Your task to perform on an android device: turn off airplane mode Image 0: 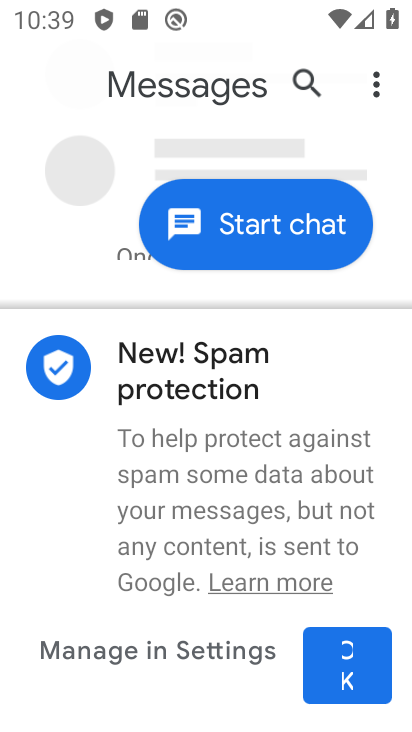
Step 0: press home button
Your task to perform on an android device: turn off airplane mode Image 1: 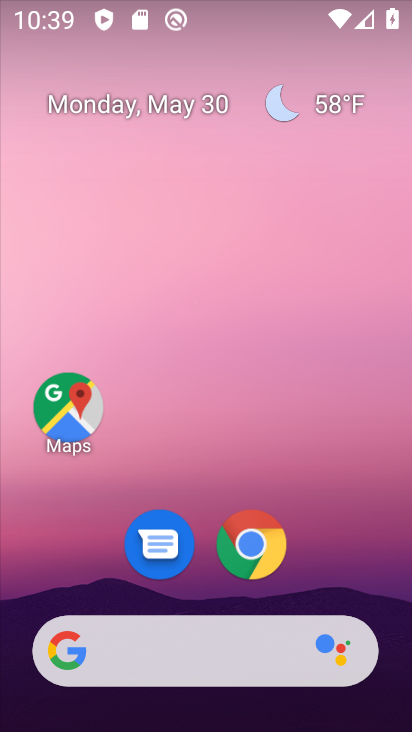
Step 1: drag from (378, 587) to (337, 130)
Your task to perform on an android device: turn off airplane mode Image 2: 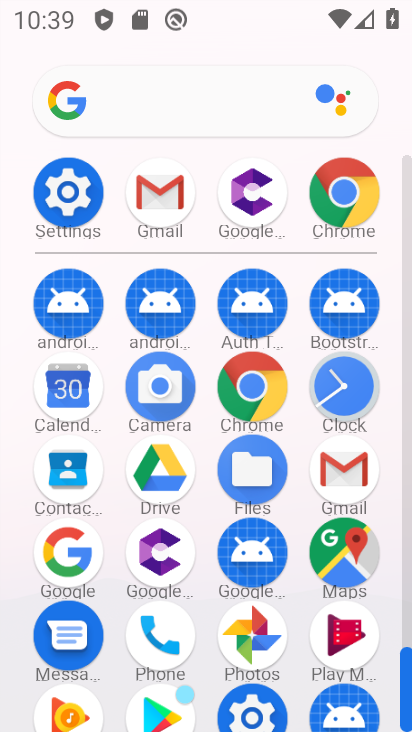
Step 2: click (86, 184)
Your task to perform on an android device: turn off airplane mode Image 3: 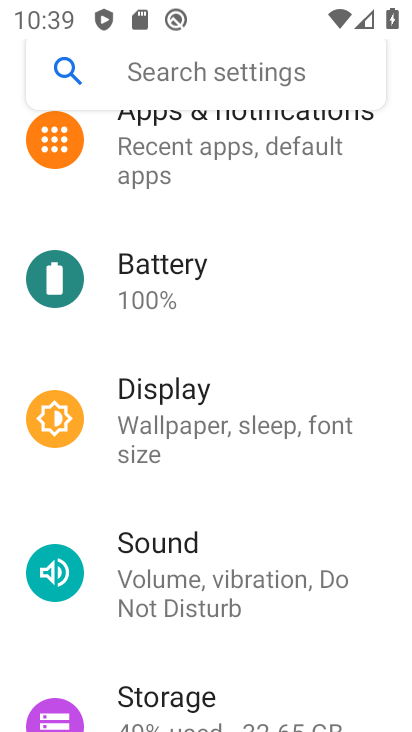
Step 3: drag from (260, 163) to (161, 686)
Your task to perform on an android device: turn off airplane mode Image 4: 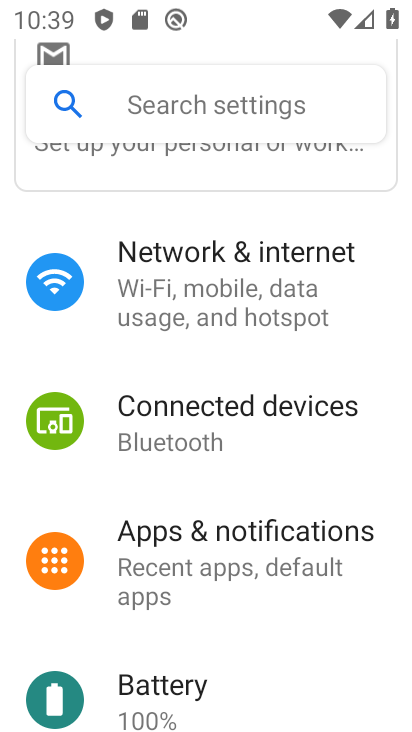
Step 4: click (271, 233)
Your task to perform on an android device: turn off airplane mode Image 5: 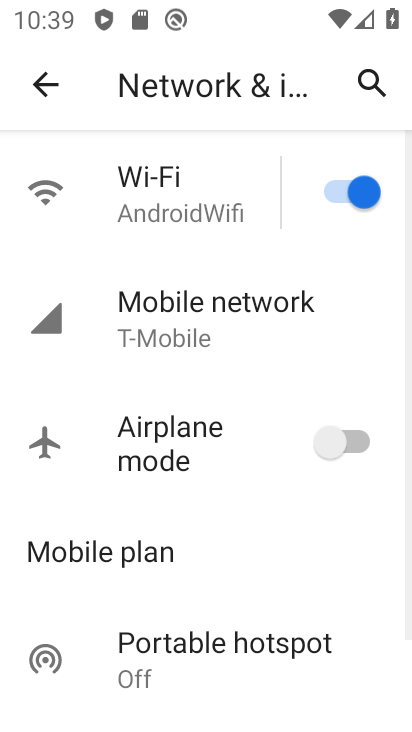
Step 5: click (335, 415)
Your task to perform on an android device: turn off airplane mode Image 6: 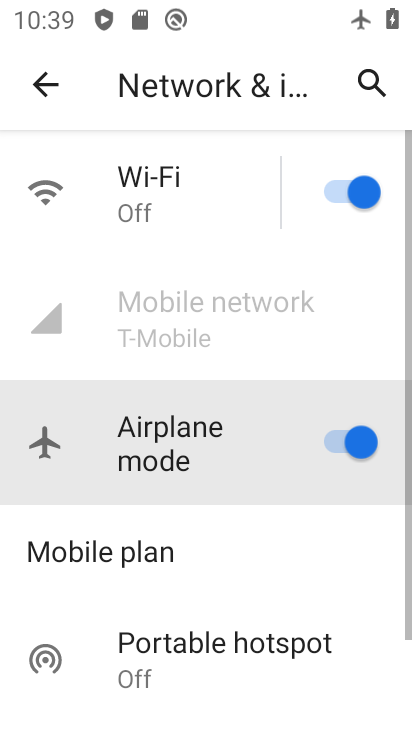
Step 6: click (335, 415)
Your task to perform on an android device: turn off airplane mode Image 7: 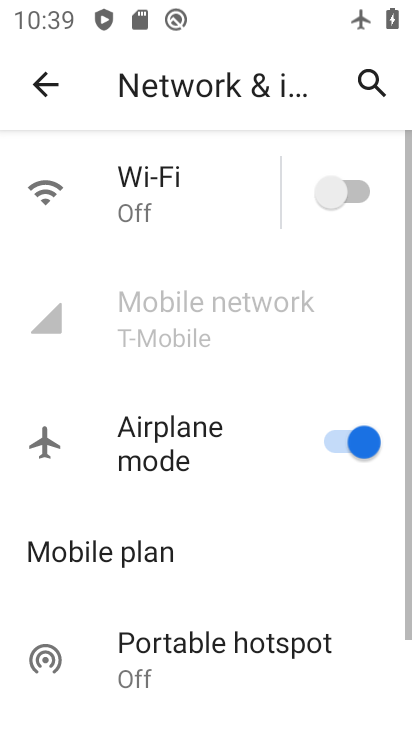
Step 7: click (335, 415)
Your task to perform on an android device: turn off airplane mode Image 8: 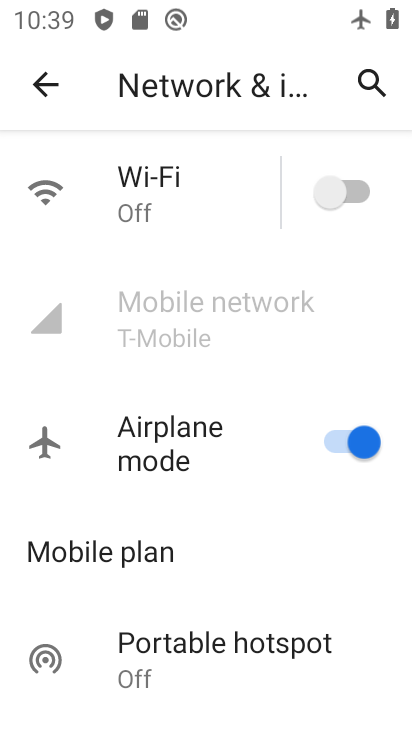
Step 8: click (385, 422)
Your task to perform on an android device: turn off airplane mode Image 9: 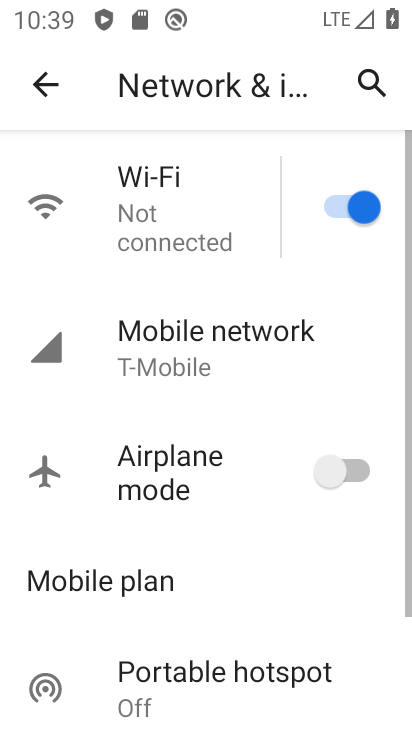
Step 9: task complete